Your task to perform on an android device: Open accessibility settings Image 0: 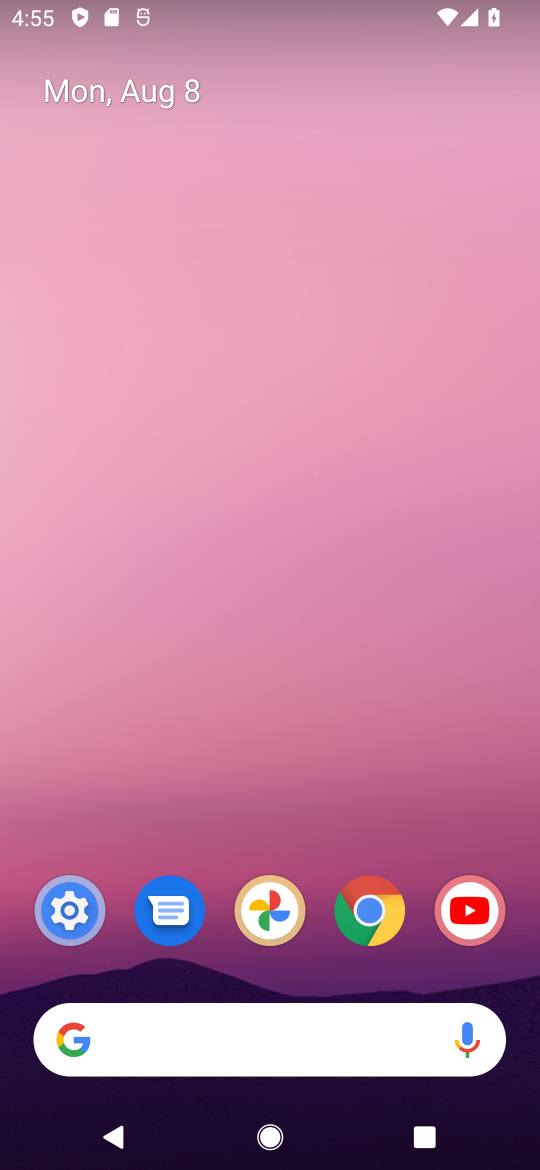
Step 0: drag from (190, 1059) to (424, 368)
Your task to perform on an android device: Open accessibility settings Image 1: 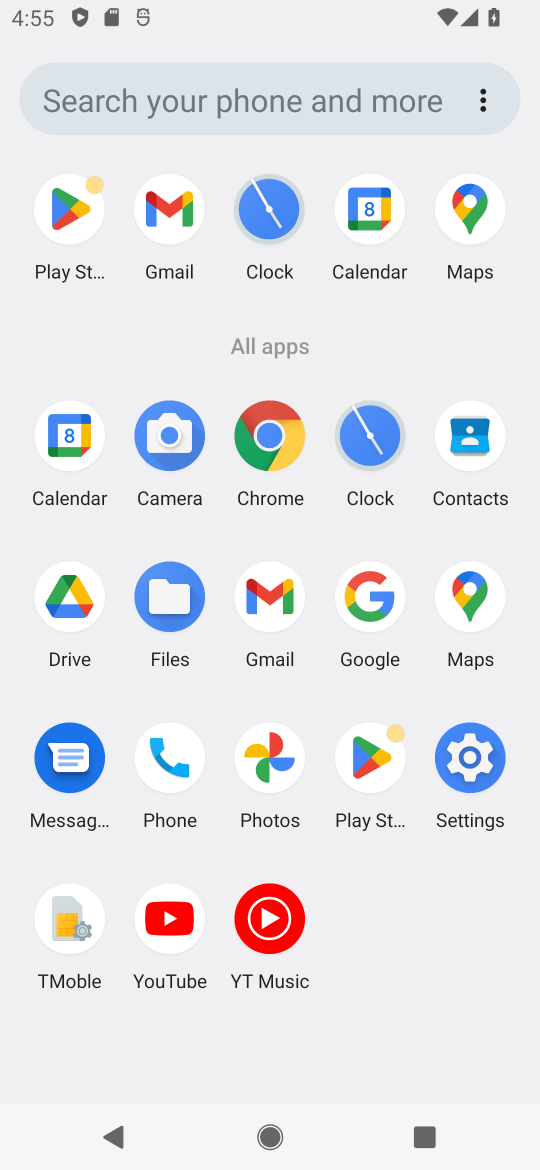
Step 1: click (473, 756)
Your task to perform on an android device: Open accessibility settings Image 2: 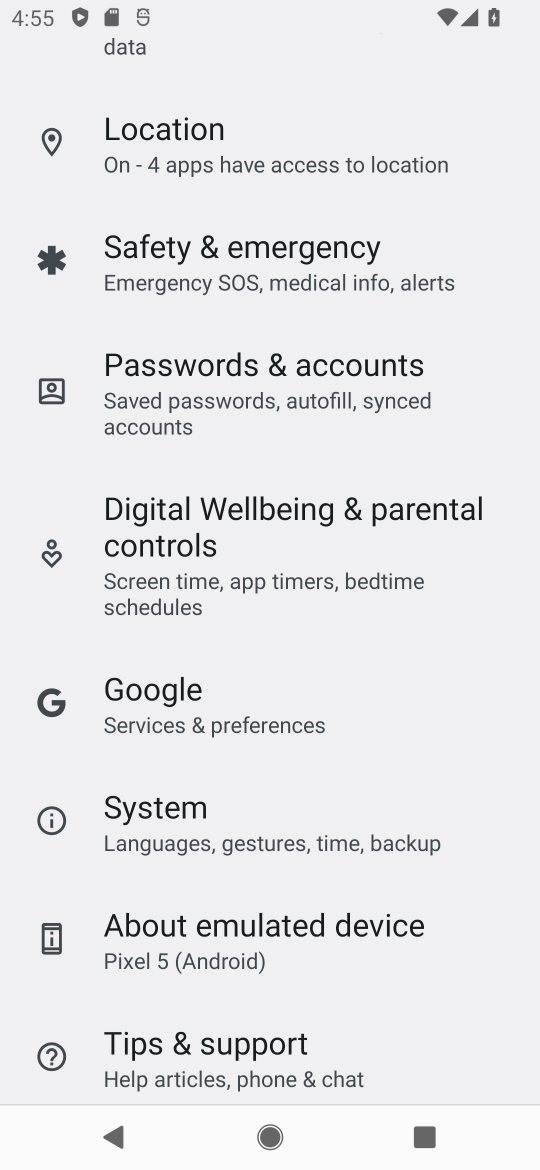
Step 2: drag from (300, 679) to (321, 949)
Your task to perform on an android device: Open accessibility settings Image 3: 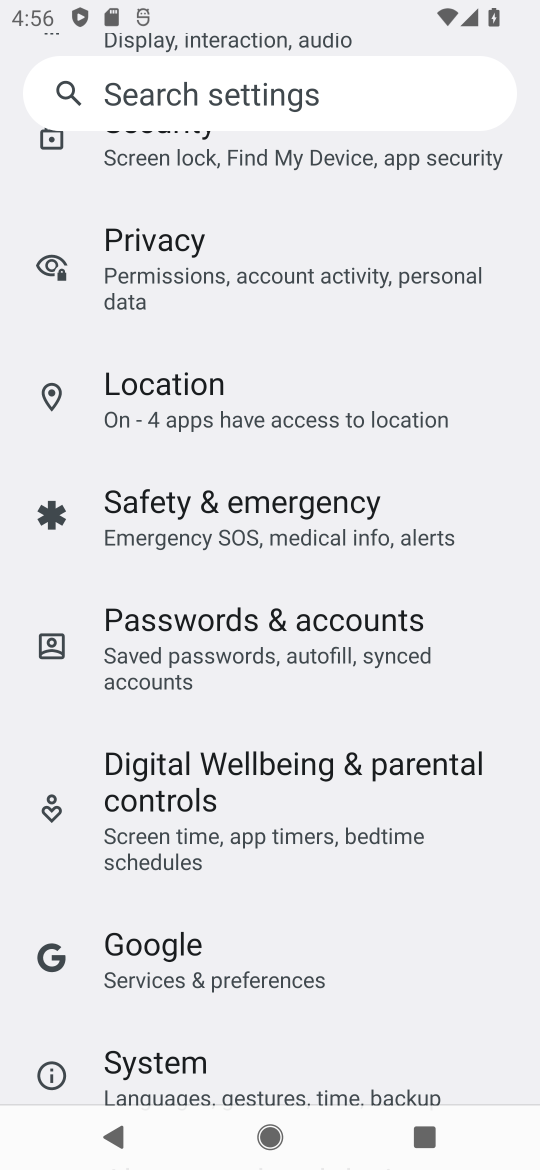
Step 3: drag from (270, 696) to (267, 922)
Your task to perform on an android device: Open accessibility settings Image 4: 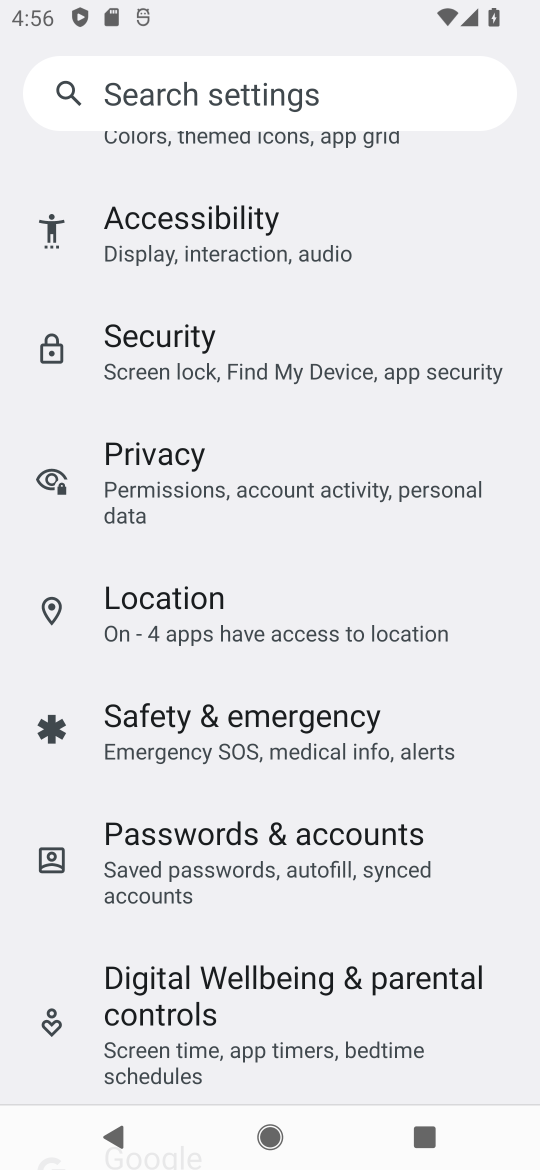
Step 4: drag from (264, 547) to (296, 750)
Your task to perform on an android device: Open accessibility settings Image 5: 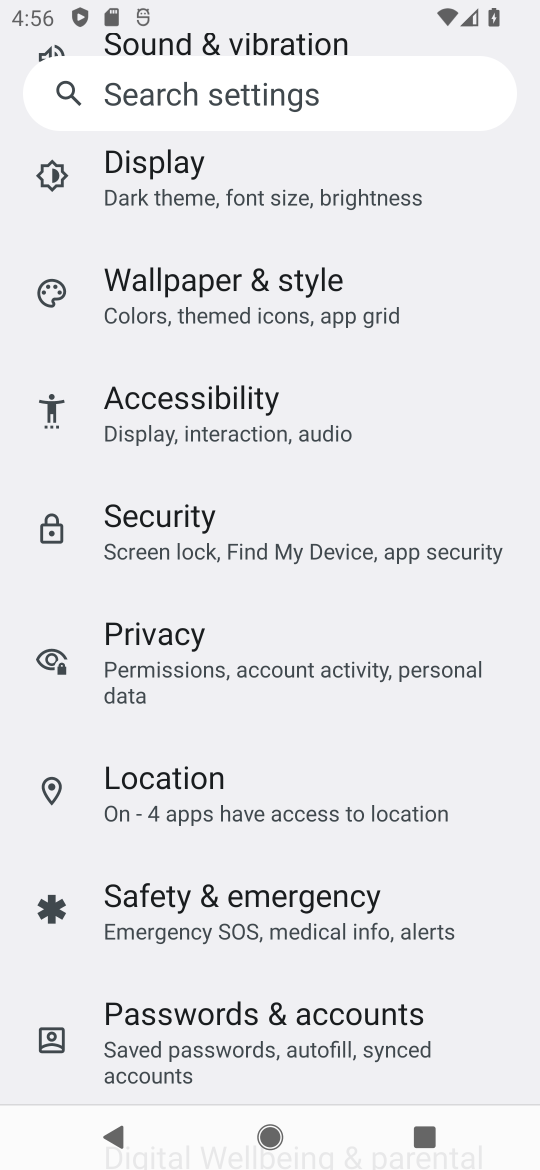
Step 5: click (241, 423)
Your task to perform on an android device: Open accessibility settings Image 6: 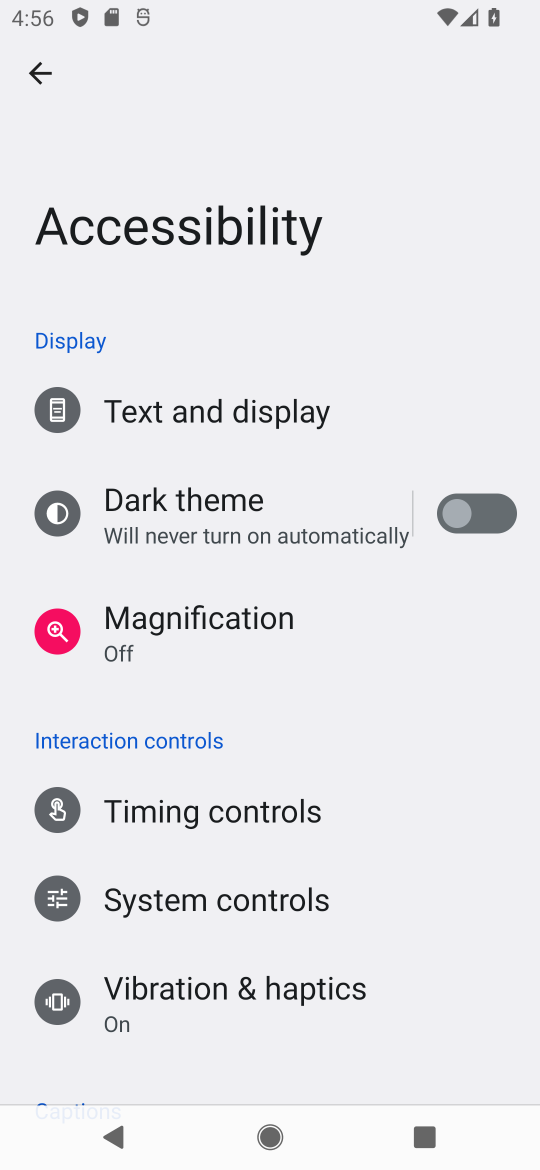
Step 6: task complete